Your task to perform on an android device: Go to privacy settings Image 0: 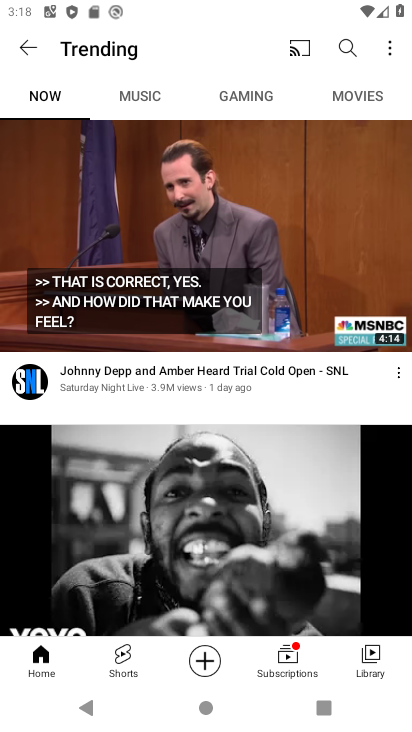
Step 0: press home button
Your task to perform on an android device: Go to privacy settings Image 1: 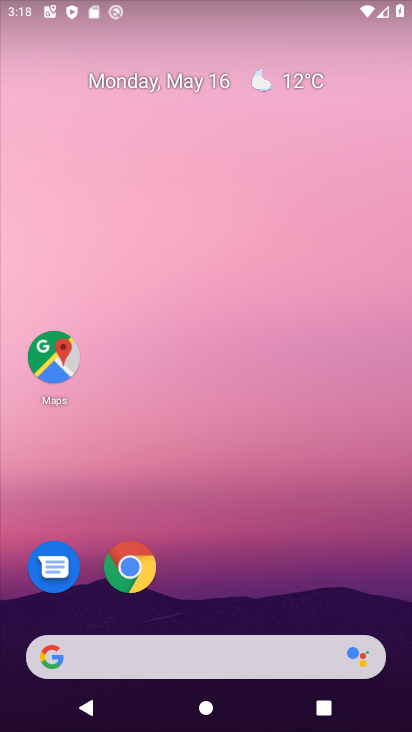
Step 1: drag from (265, 468) to (259, 47)
Your task to perform on an android device: Go to privacy settings Image 2: 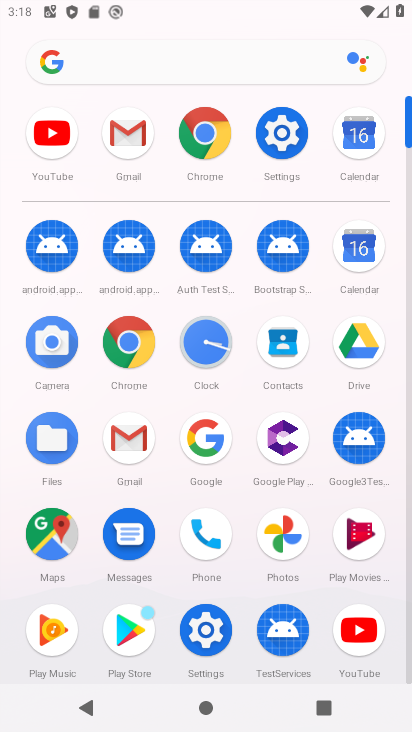
Step 2: click (269, 137)
Your task to perform on an android device: Go to privacy settings Image 3: 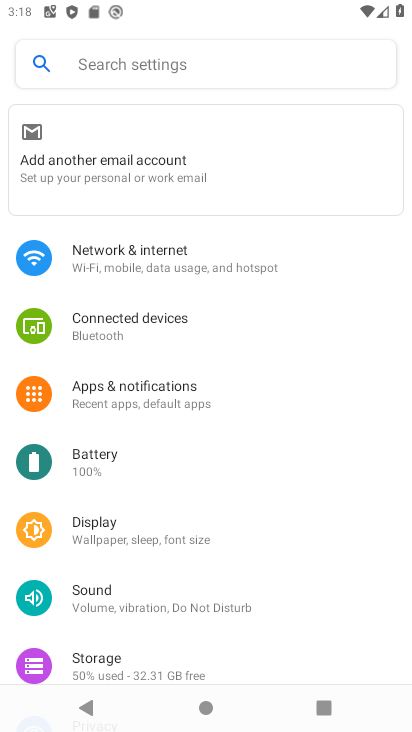
Step 3: drag from (263, 438) to (377, 110)
Your task to perform on an android device: Go to privacy settings Image 4: 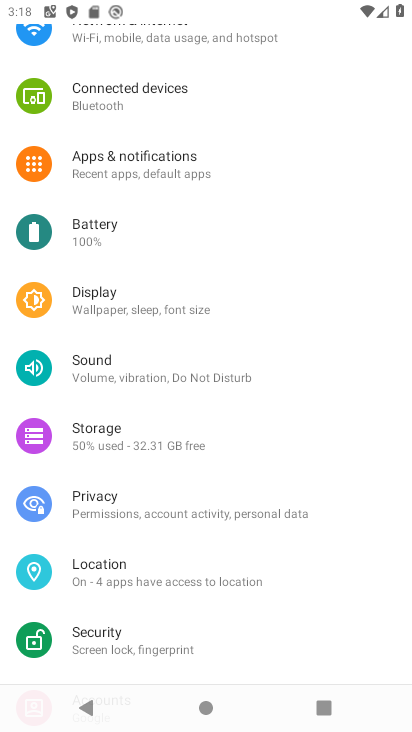
Step 4: click (93, 507)
Your task to perform on an android device: Go to privacy settings Image 5: 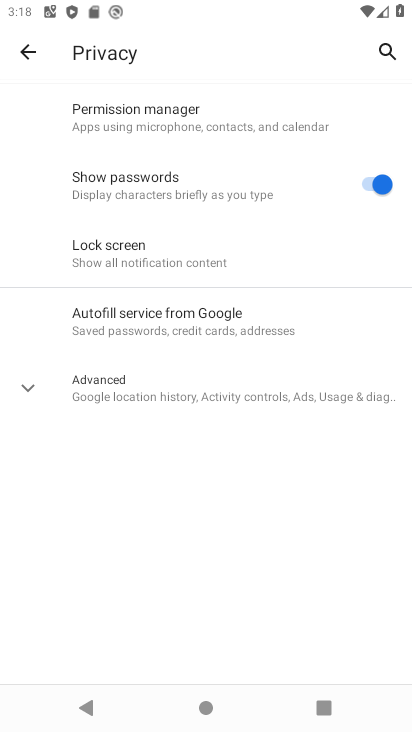
Step 5: task complete